Your task to perform on an android device: Go to settings Image 0: 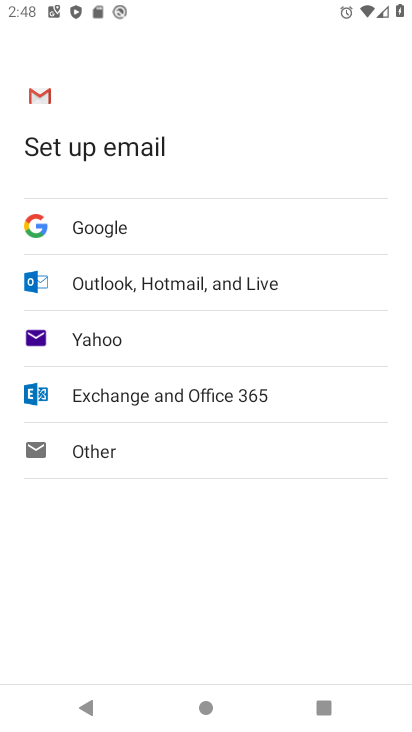
Step 0: press home button
Your task to perform on an android device: Go to settings Image 1: 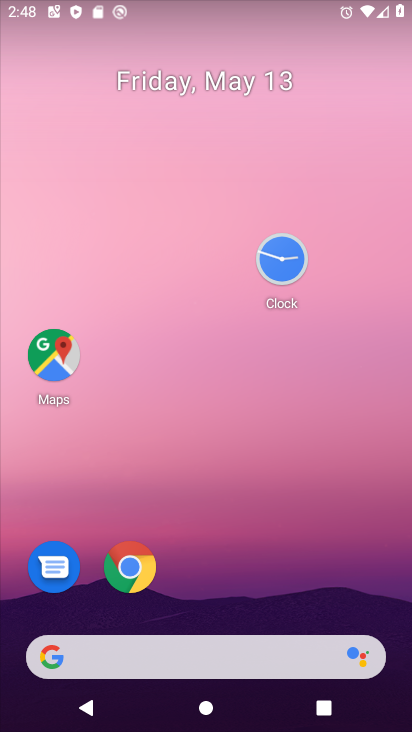
Step 1: drag from (267, 508) to (201, 277)
Your task to perform on an android device: Go to settings Image 2: 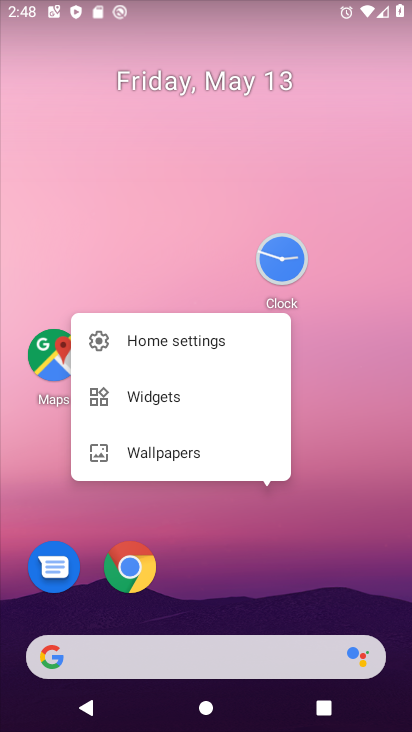
Step 2: click (220, 523)
Your task to perform on an android device: Go to settings Image 3: 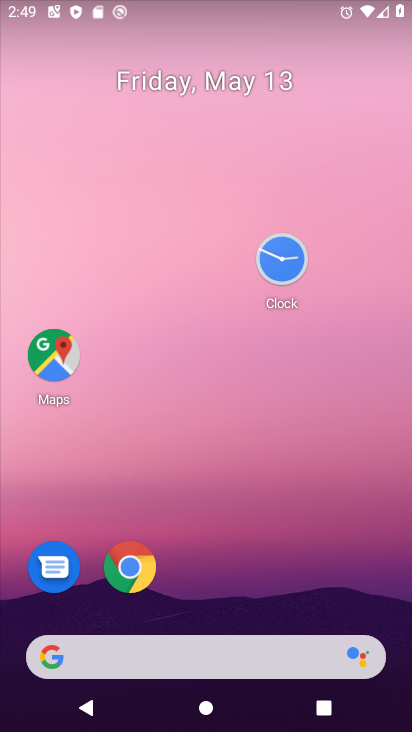
Step 3: drag from (214, 583) to (181, 222)
Your task to perform on an android device: Go to settings Image 4: 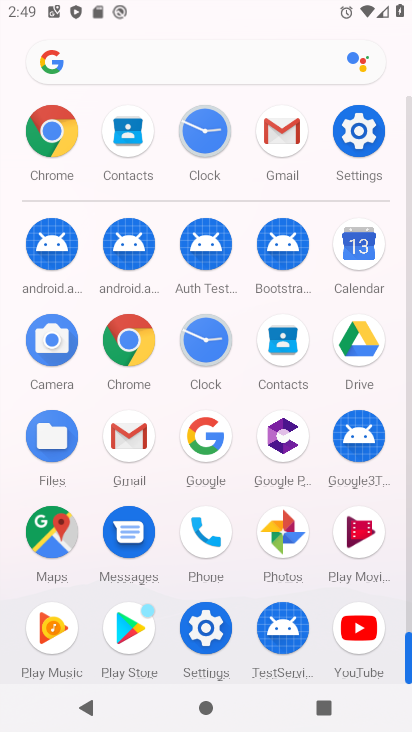
Step 4: click (351, 156)
Your task to perform on an android device: Go to settings Image 5: 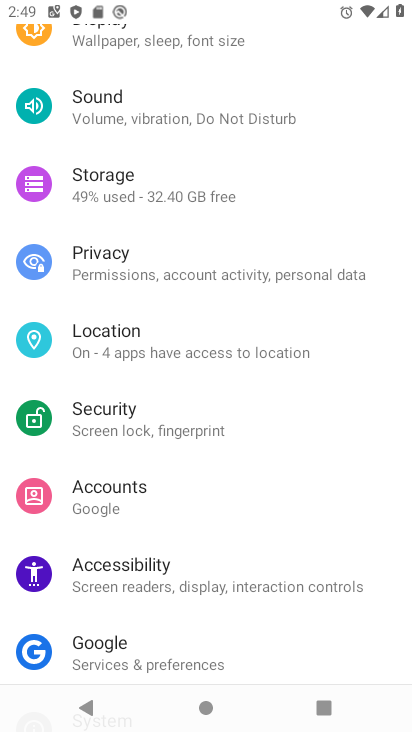
Step 5: task complete